Your task to perform on an android device: Open Amazon Image 0: 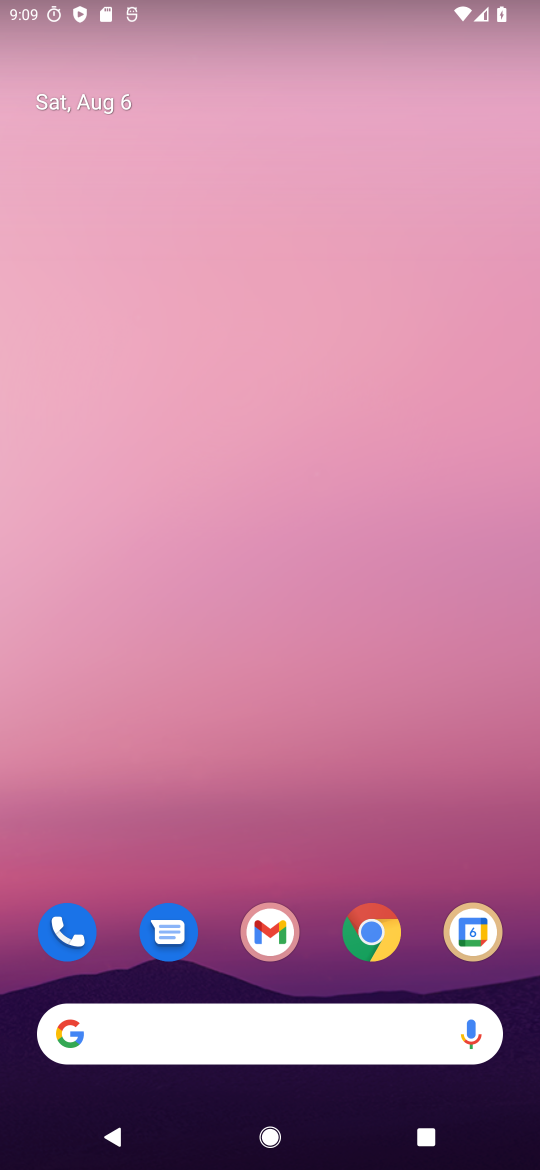
Step 0: press home button
Your task to perform on an android device: Open Amazon Image 1: 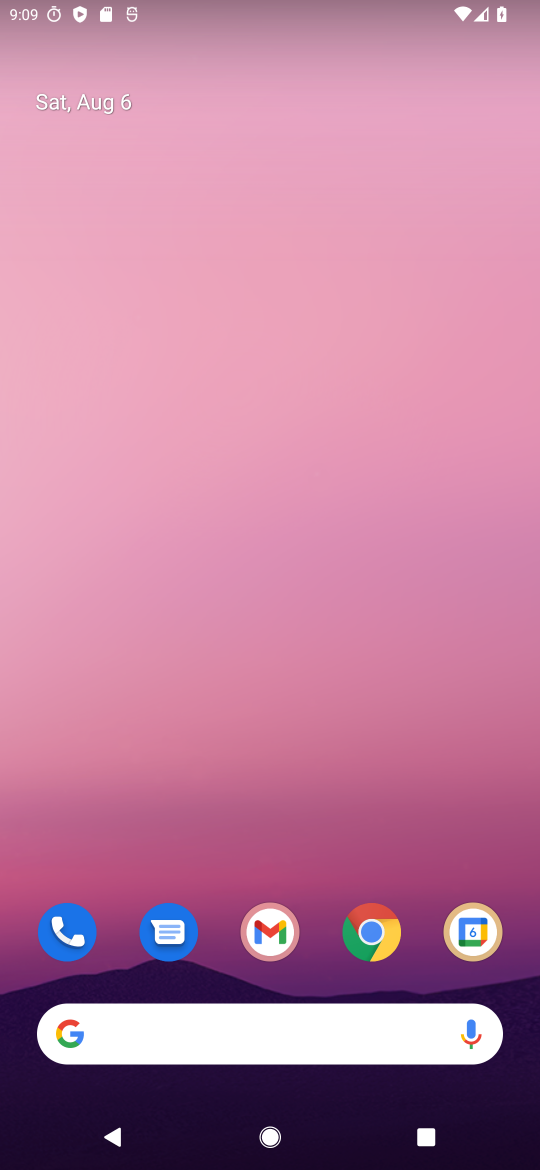
Step 1: click (367, 926)
Your task to perform on an android device: Open Amazon Image 2: 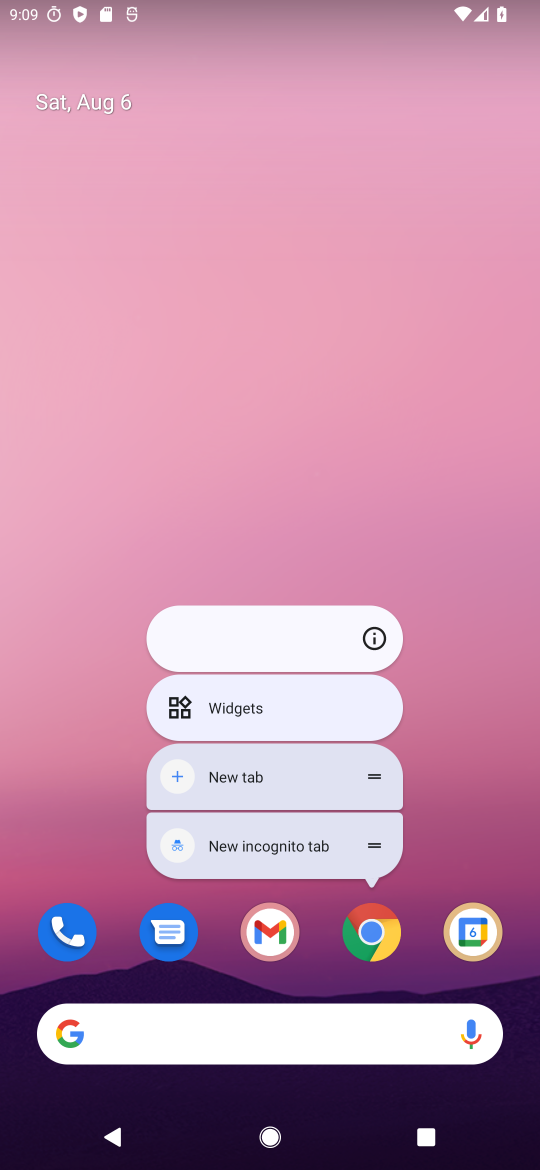
Step 2: click (367, 926)
Your task to perform on an android device: Open Amazon Image 3: 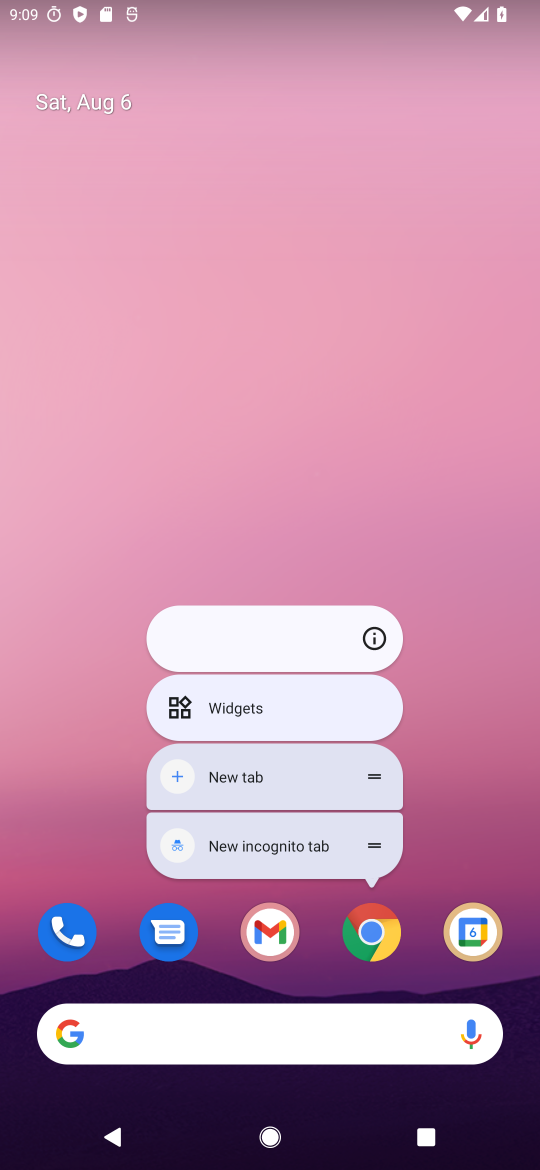
Step 3: click (367, 938)
Your task to perform on an android device: Open Amazon Image 4: 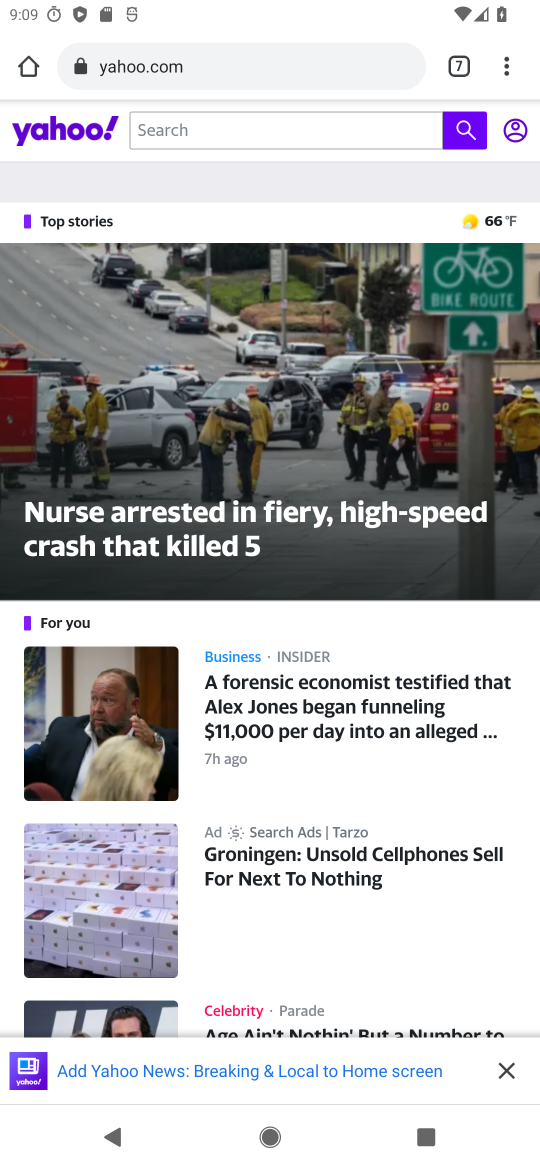
Step 4: drag from (511, 56) to (373, 201)
Your task to perform on an android device: Open Amazon Image 5: 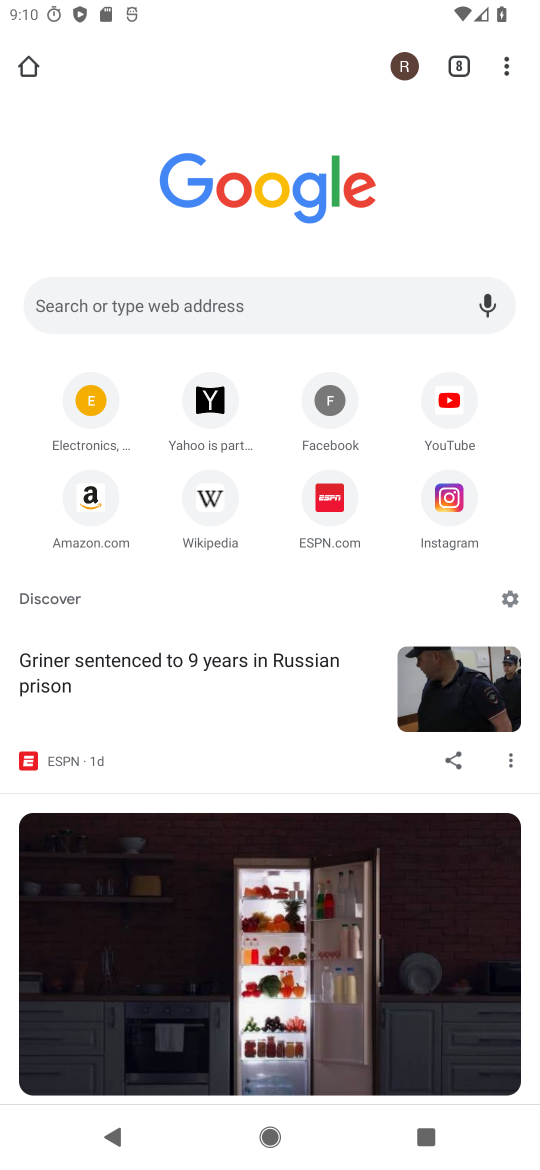
Step 5: click (90, 497)
Your task to perform on an android device: Open Amazon Image 6: 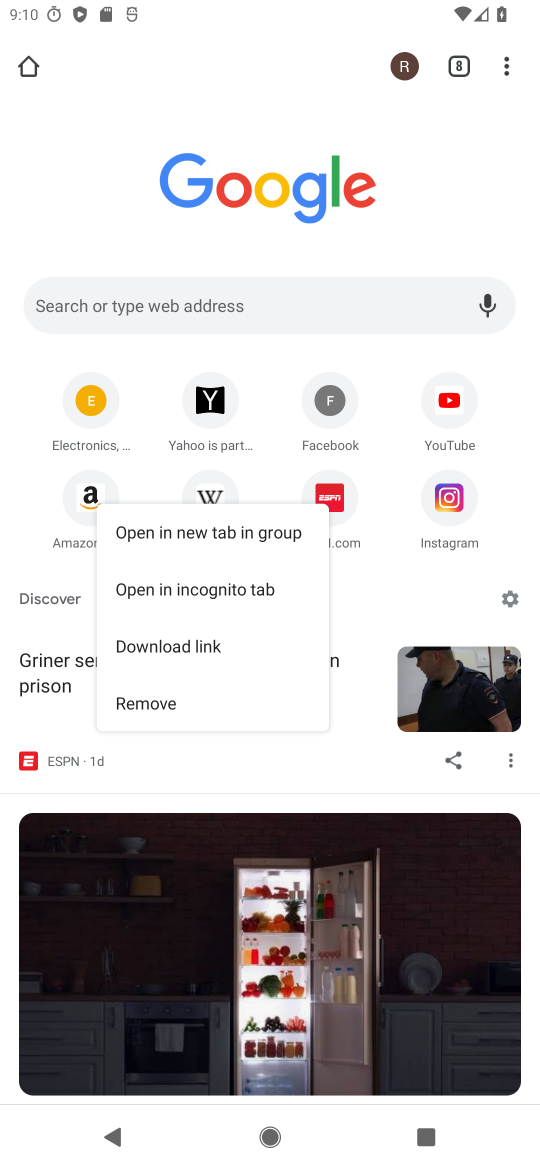
Step 6: click (90, 495)
Your task to perform on an android device: Open Amazon Image 7: 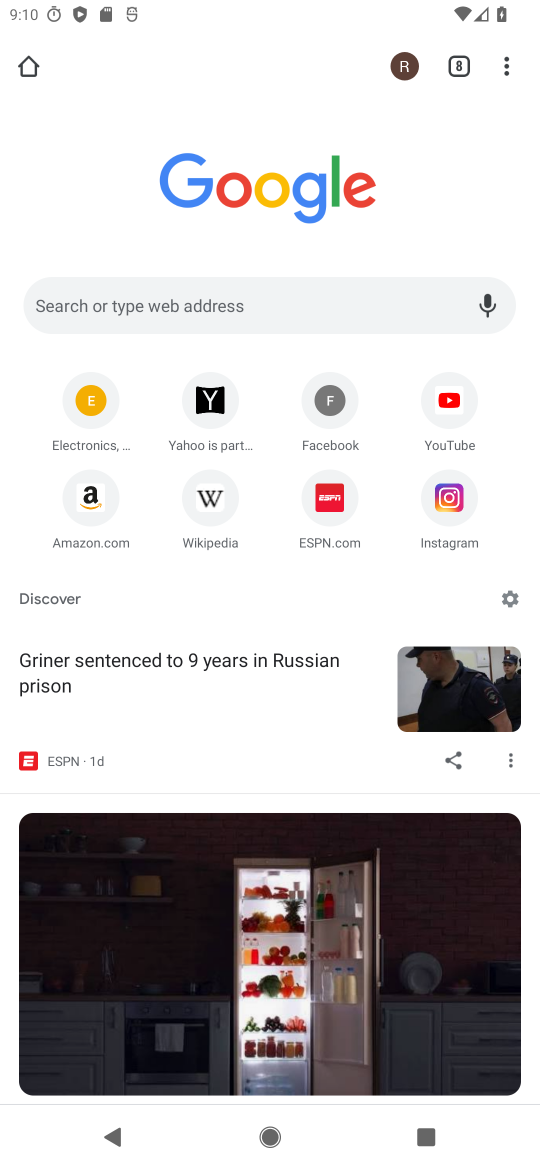
Step 7: click (90, 491)
Your task to perform on an android device: Open Amazon Image 8: 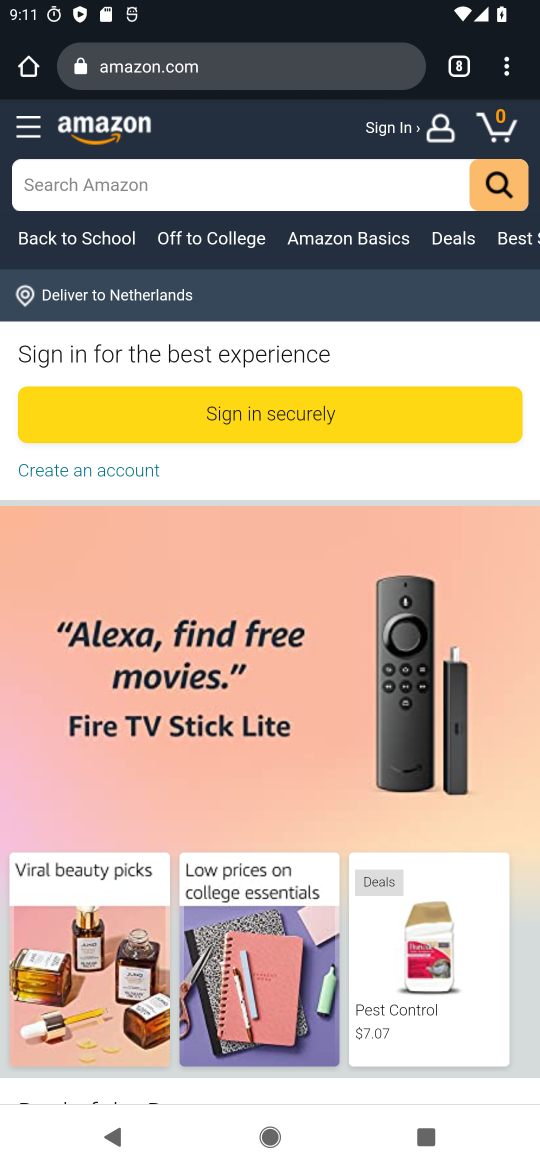
Step 8: task complete